Your task to perform on an android device: install app "Google Chat" Image 0: 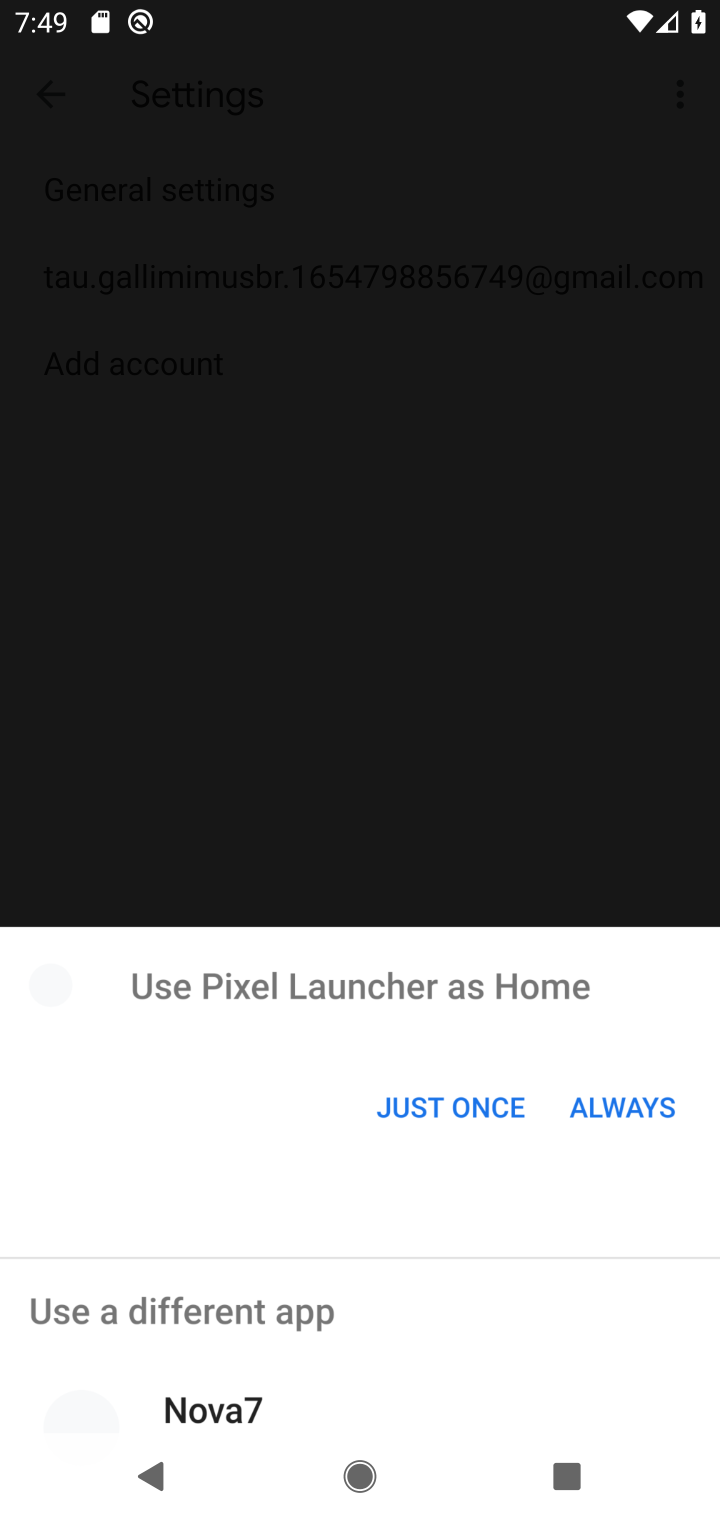
Step 0: drag from (233, 996) to (435, 246)
Your task to perform on an android device: install app "Google Chat" Image 1: 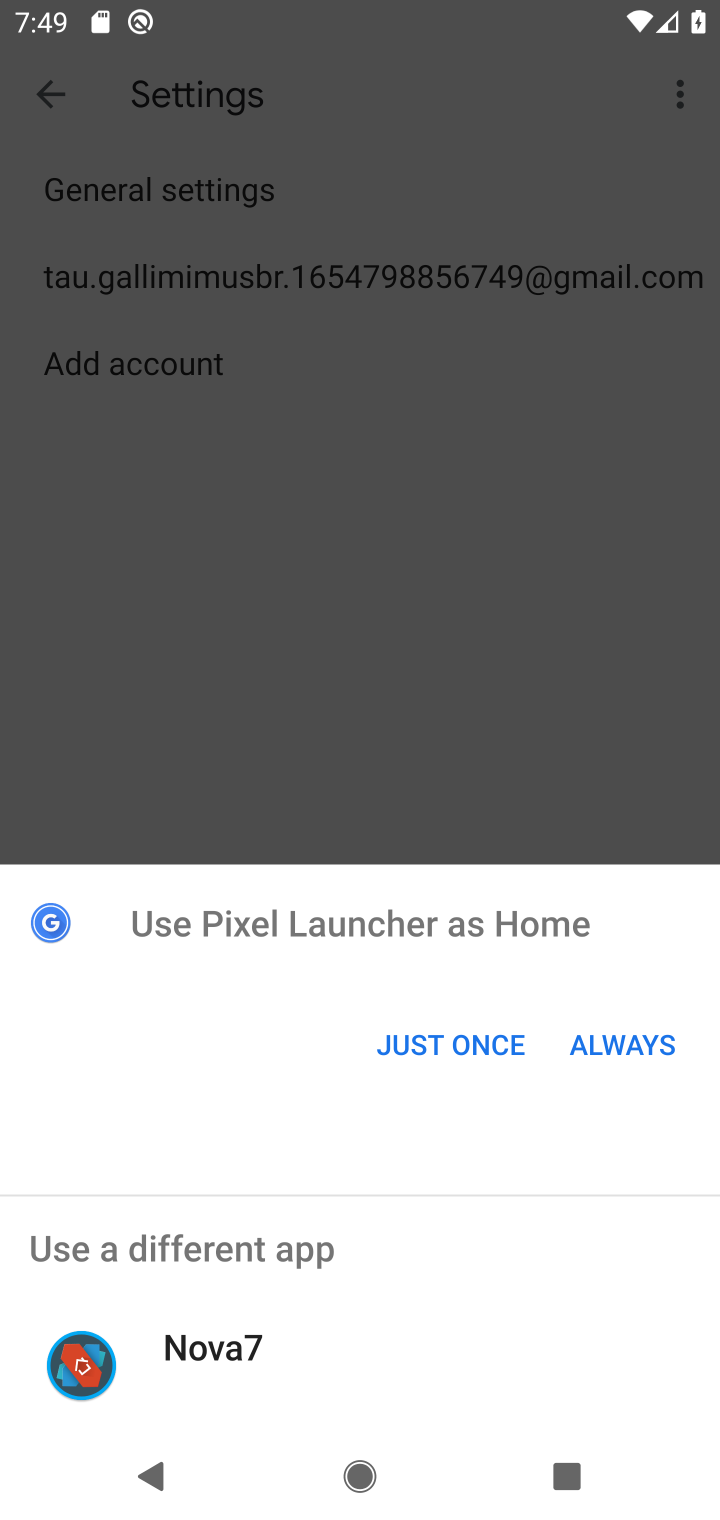
Step 1: click (654, 1053)
Your task to perform on an android device: install app "Google Chat" Image 2: 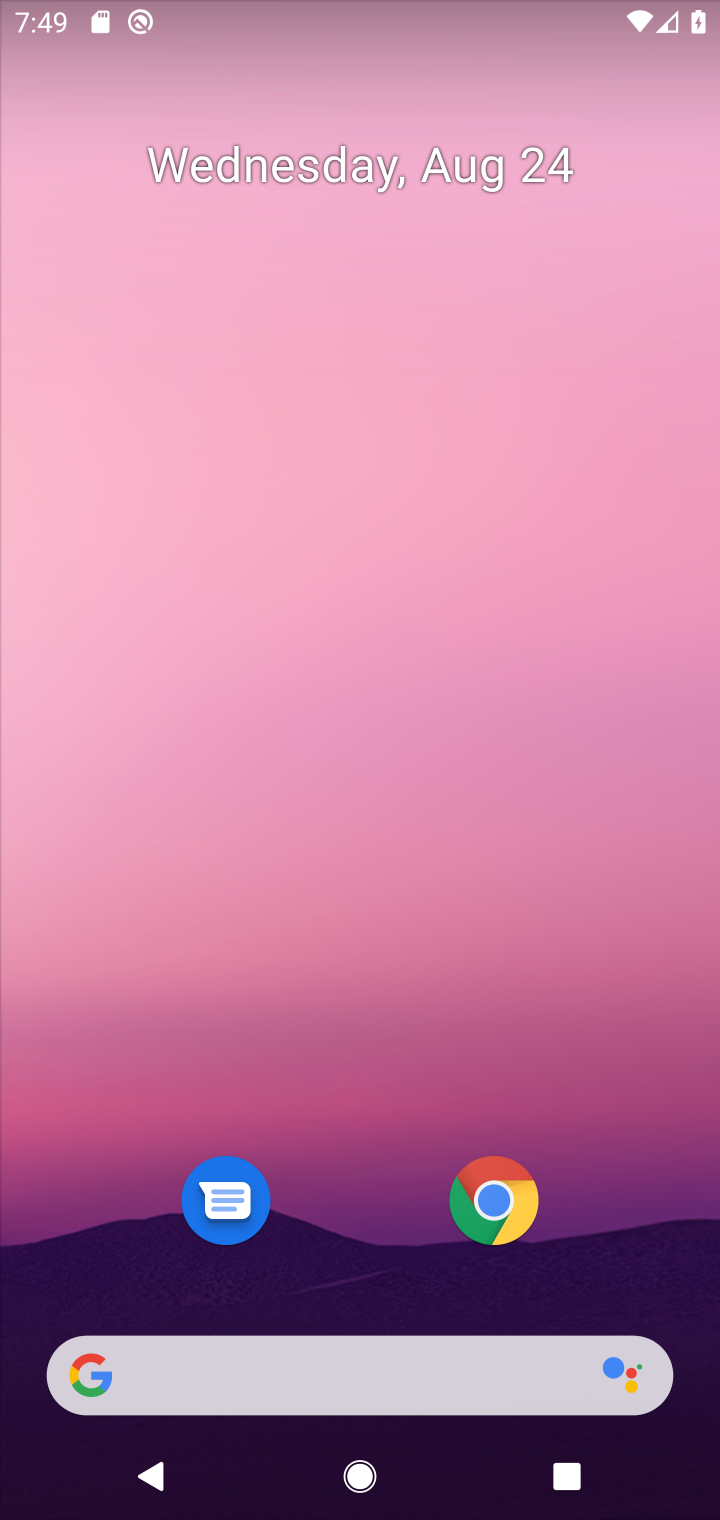
Step 2: press home button
Your task to perform on an android device: install app "Google Chat" Image 3: 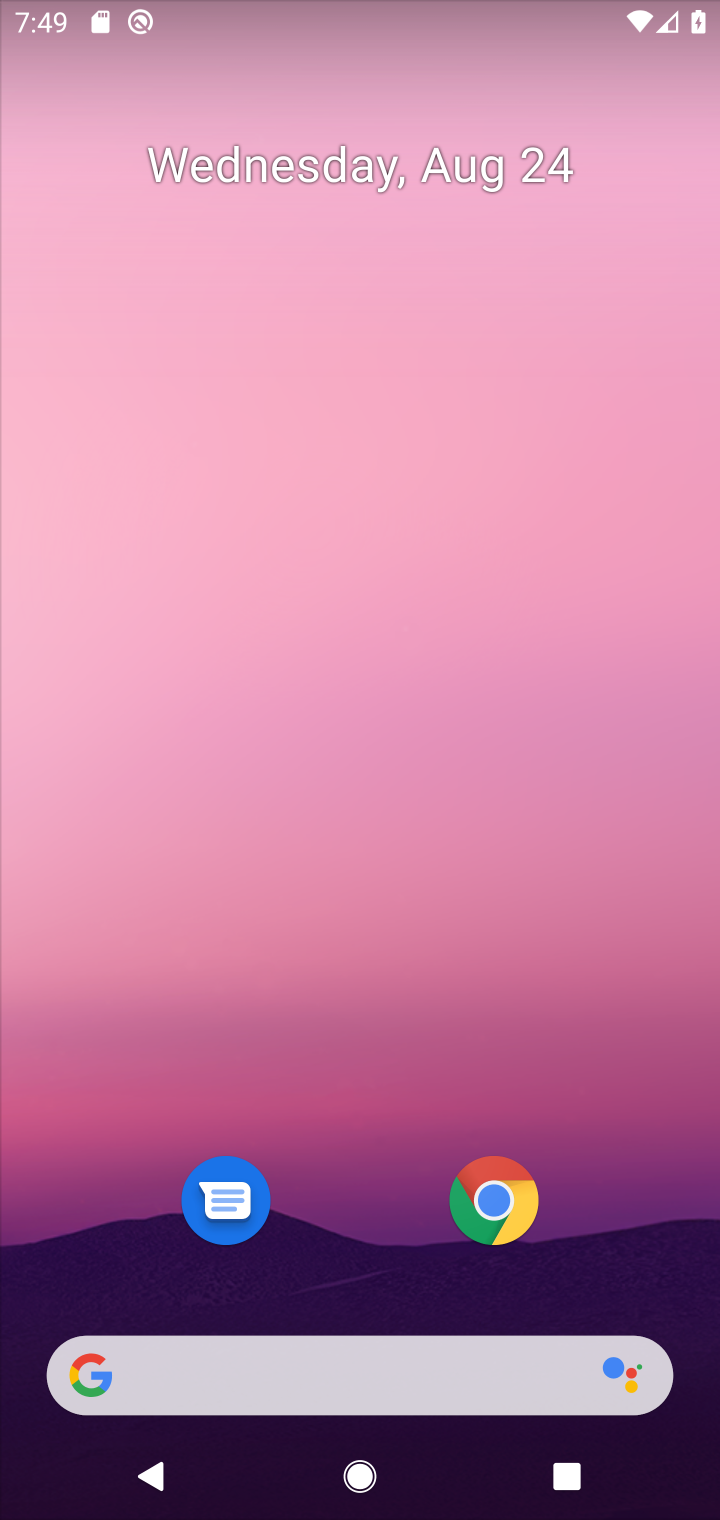
Step 3: drag from (398, 514) to (405, 428)
Your task to perform on an android device: install app "Google Chat" Image 4: 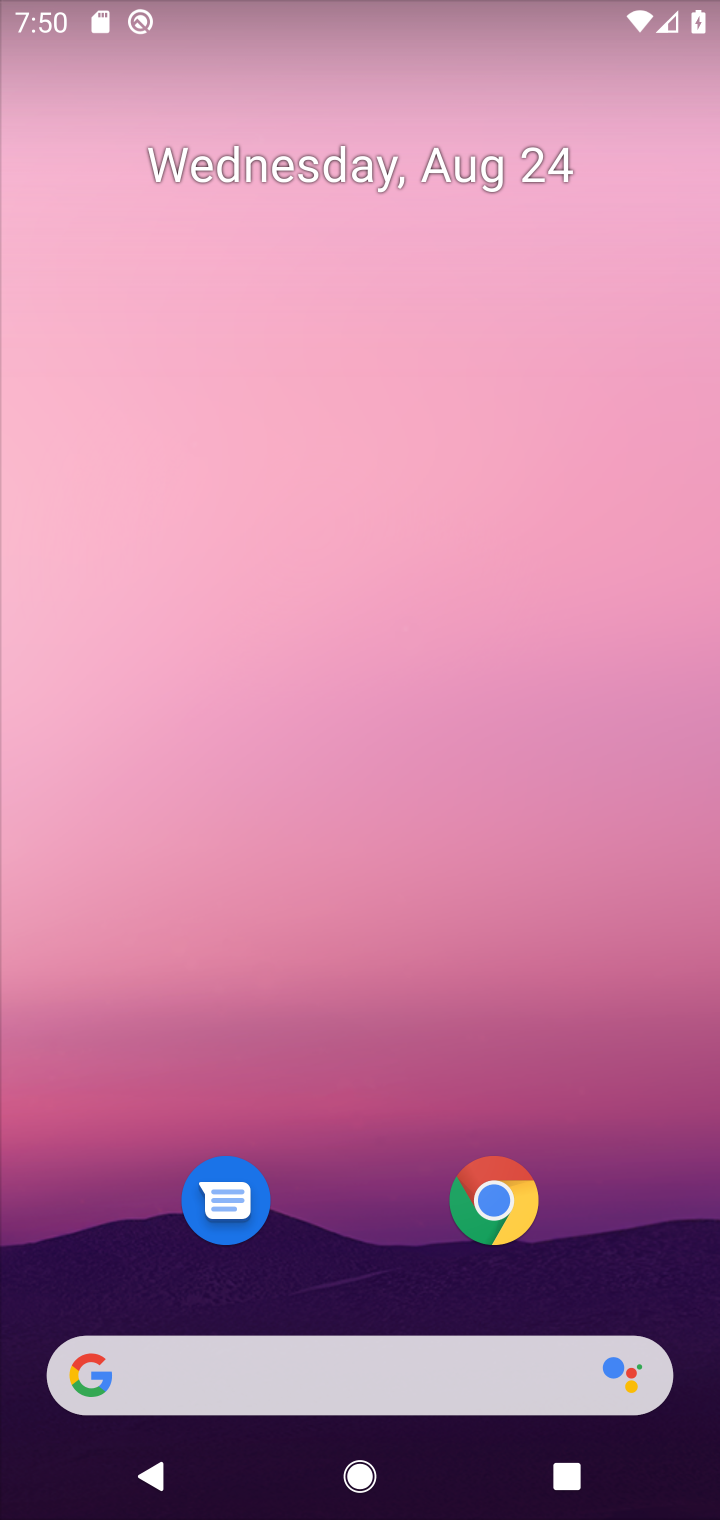
Step 4: drag from (351, 1071) to (415, 165)
Your task to perform on an android device: install app "Google Chat" Image 5: 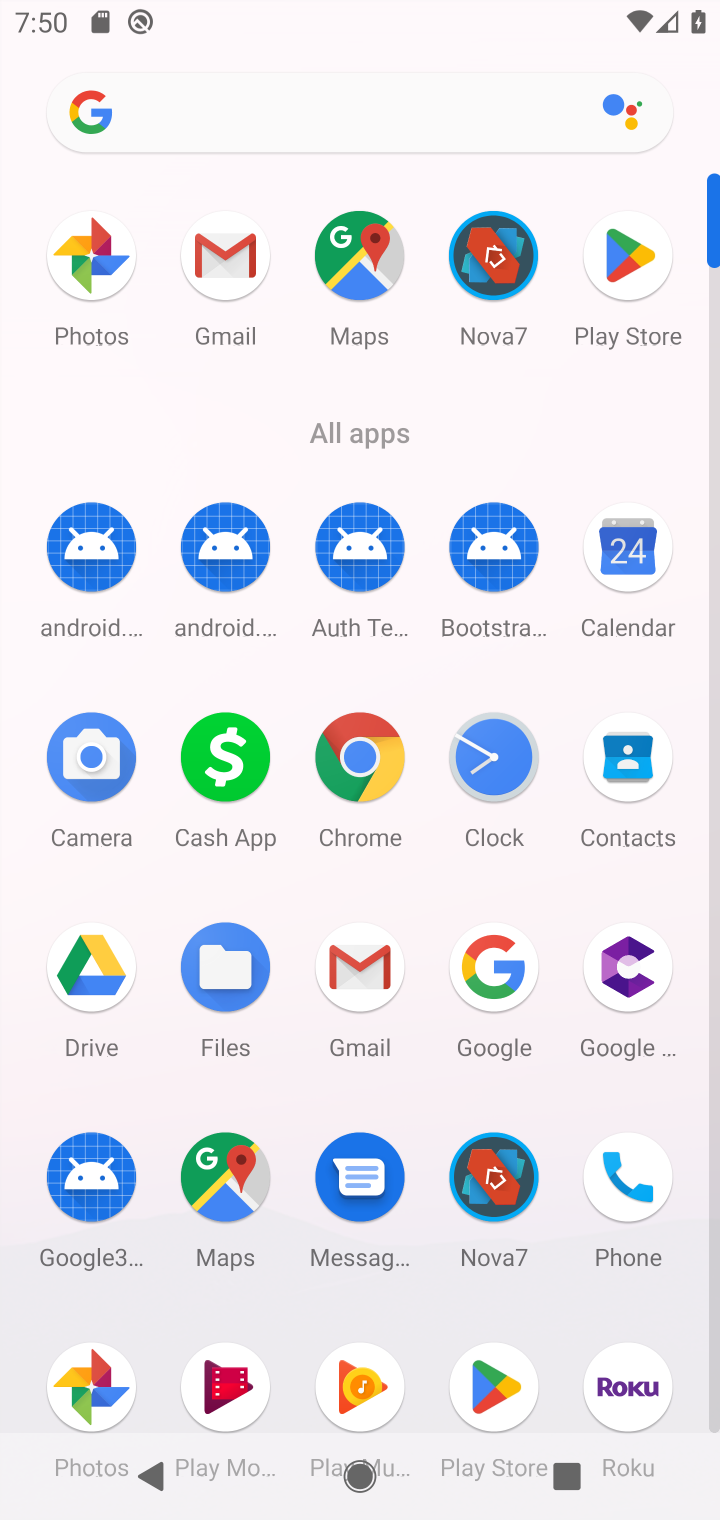
Step 5: click (621, 277)
Your task to perform on an android device: install app "Google Chat" Image 6: 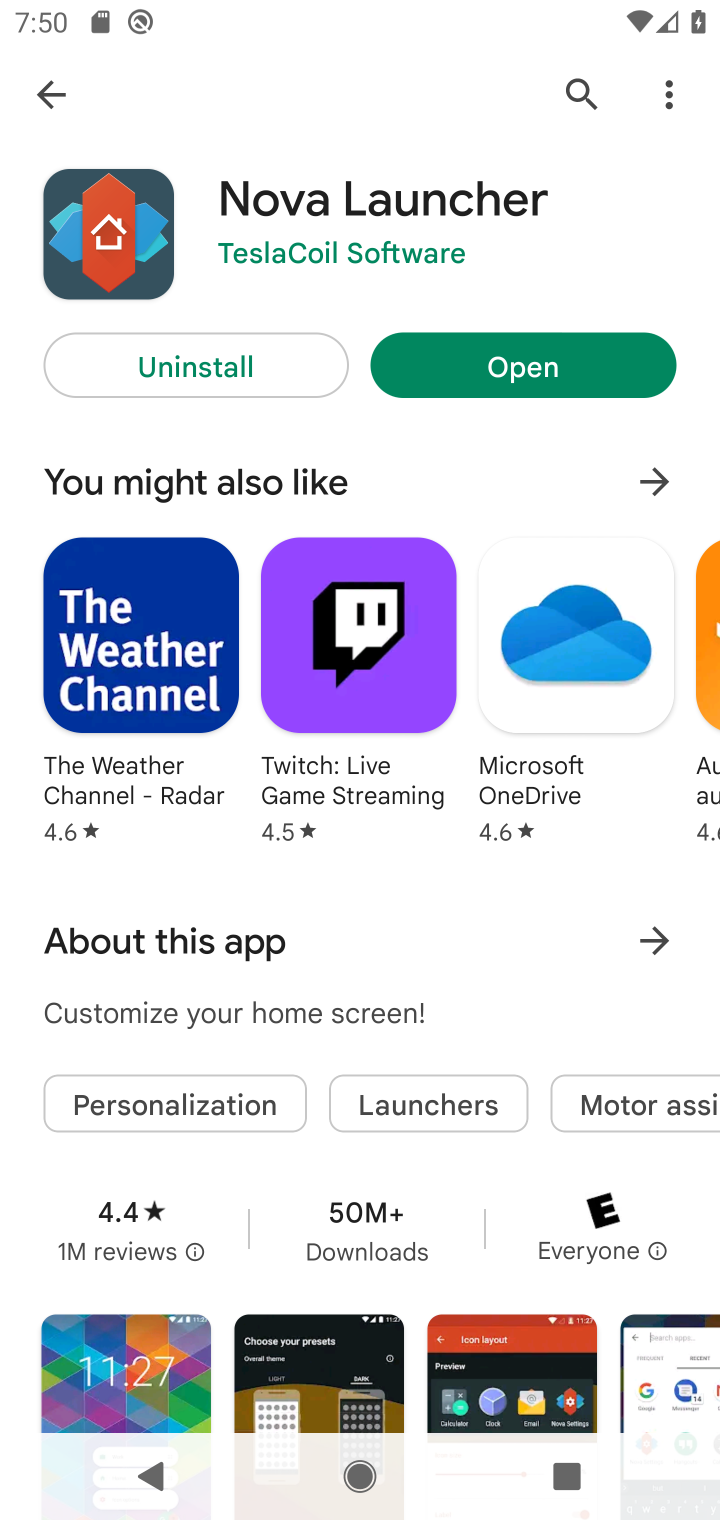
Step 6: click (54, 72)
Your task to perform on an android device: install app "Google Chat" Image 7: 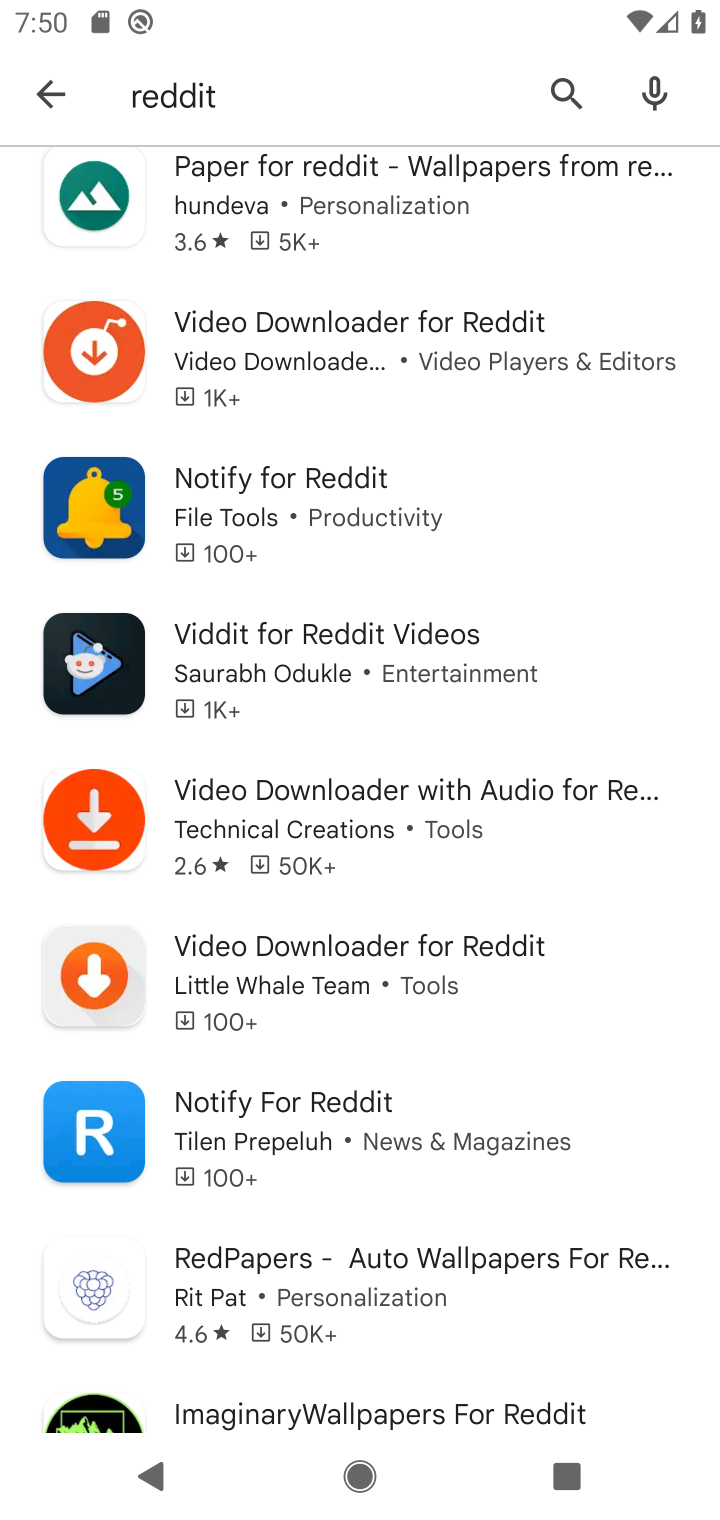
Step 7: click (272, 102)
Your task to perform on an android device: install app "Google Chat" Image 8: 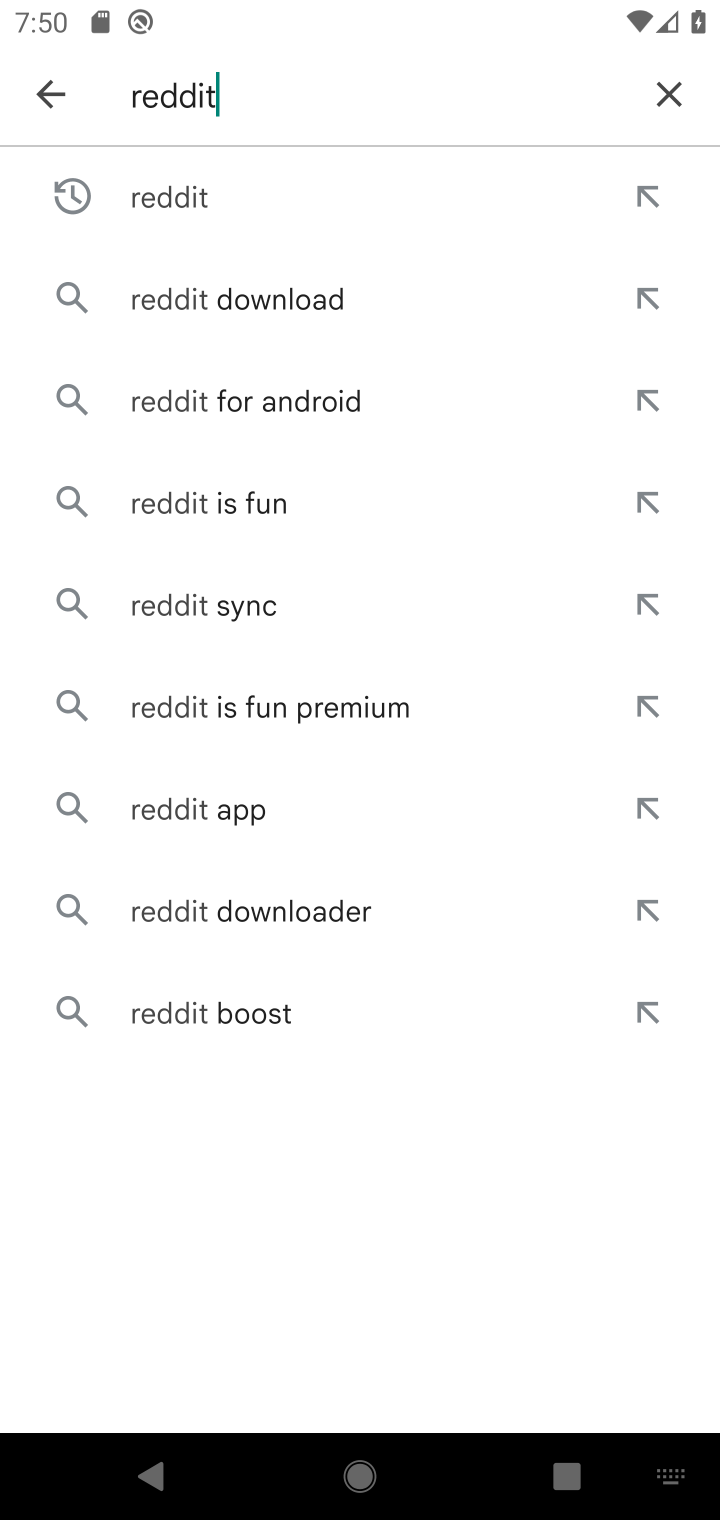
Step 8: click (285, 111)
Your task to perform on an android device: install app "Google Chat" Image 9: 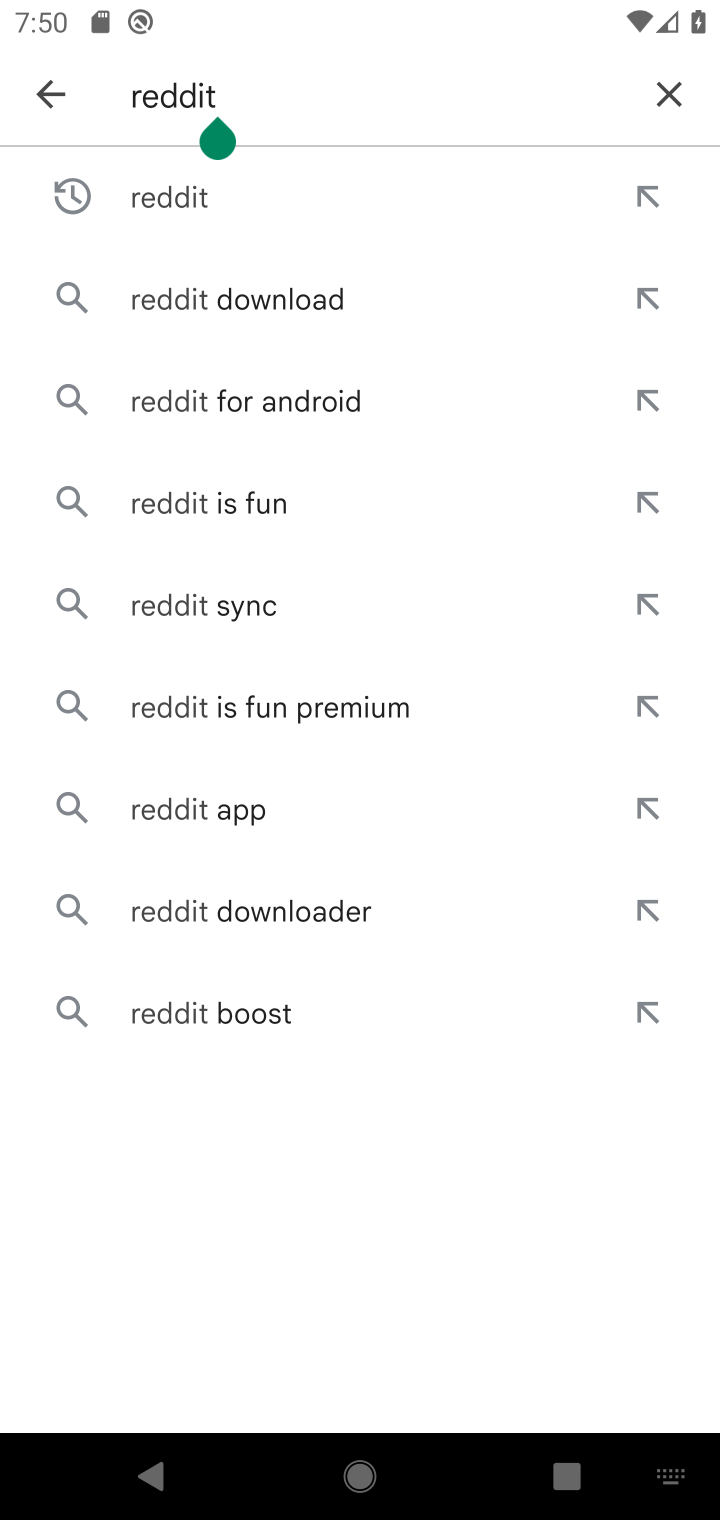
Step 9: click (656, 101)
Your task to perform on an android device: install app "Google Chat" Image 10: 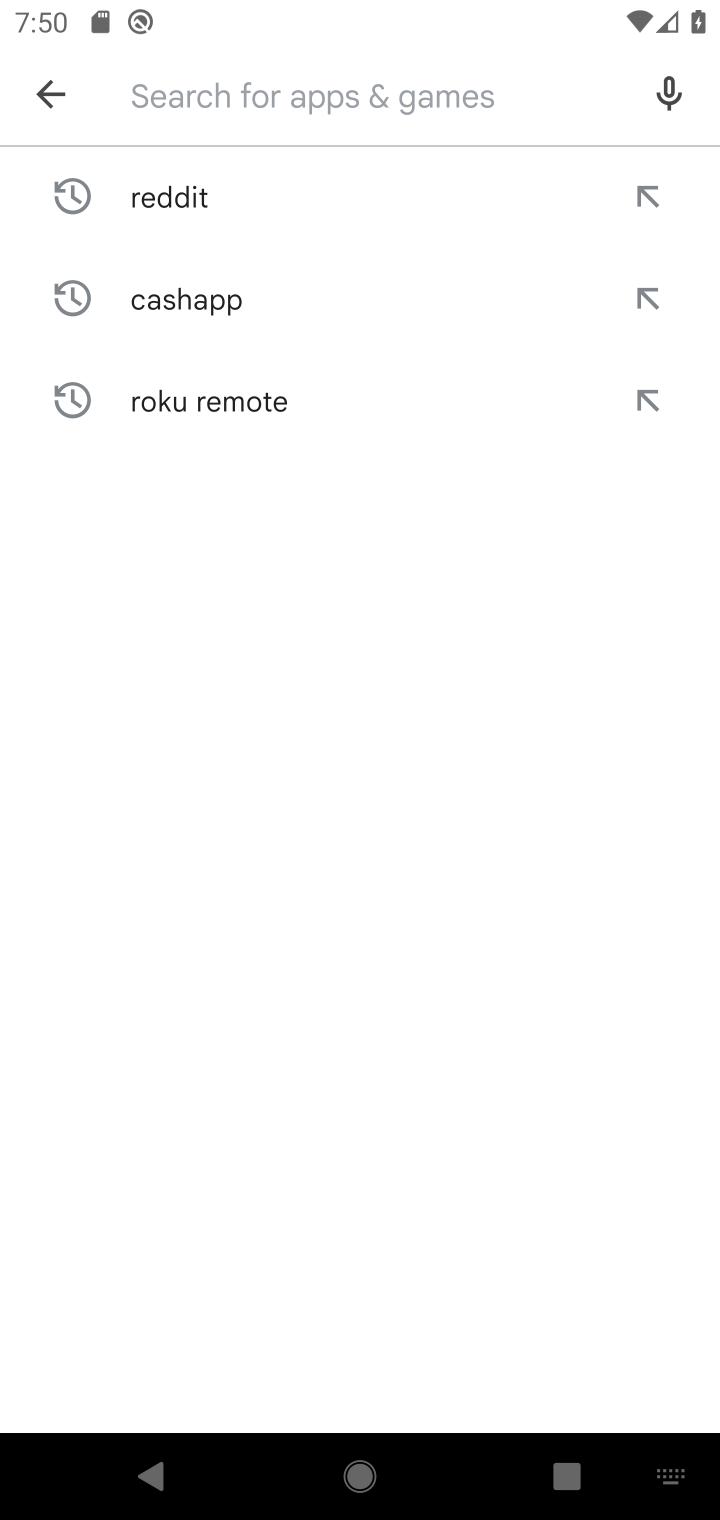
Step 10: type "google chat"
Your task to perform on an android device: install app "Google Chat" Image 11: 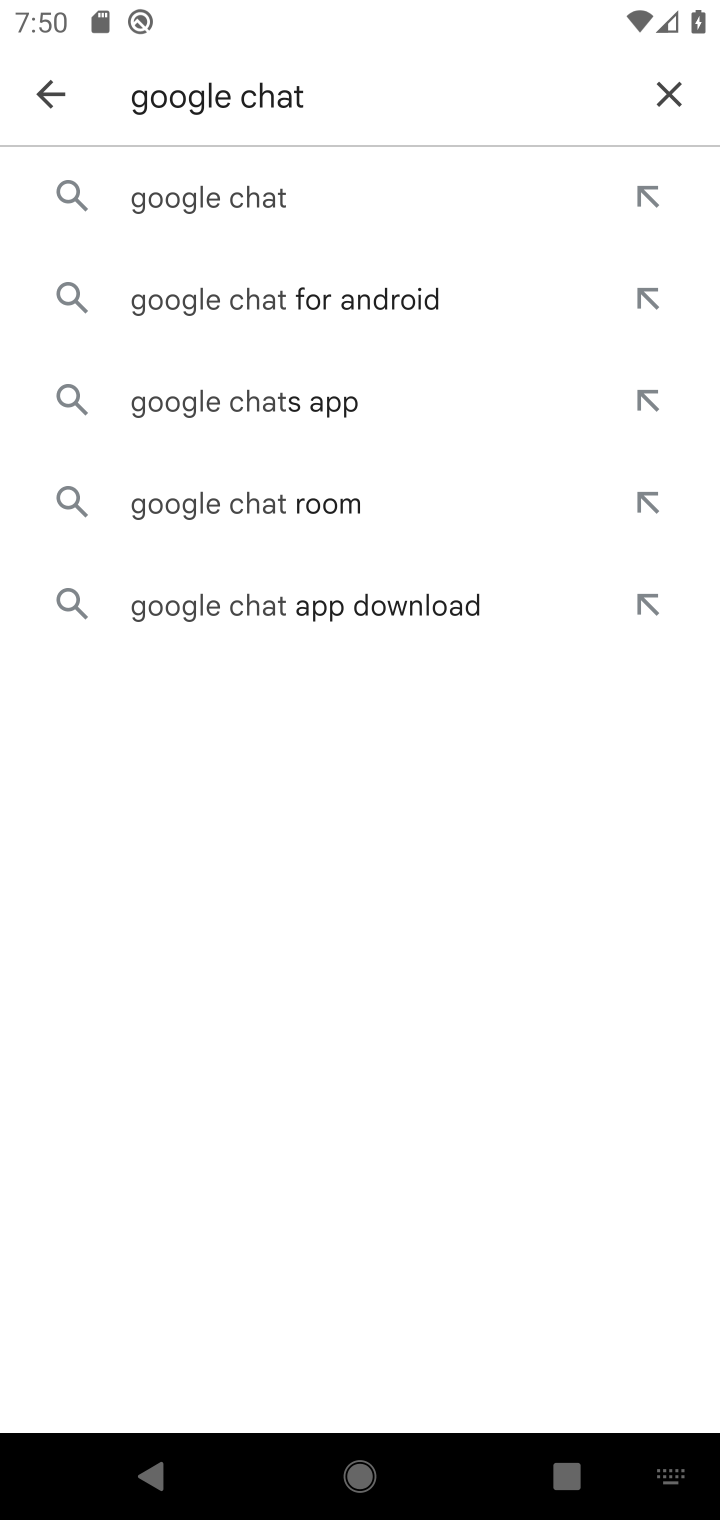
Step 11: click (252, 181)
Your task to perform on an android device: install app "Google Chat" Image 12: 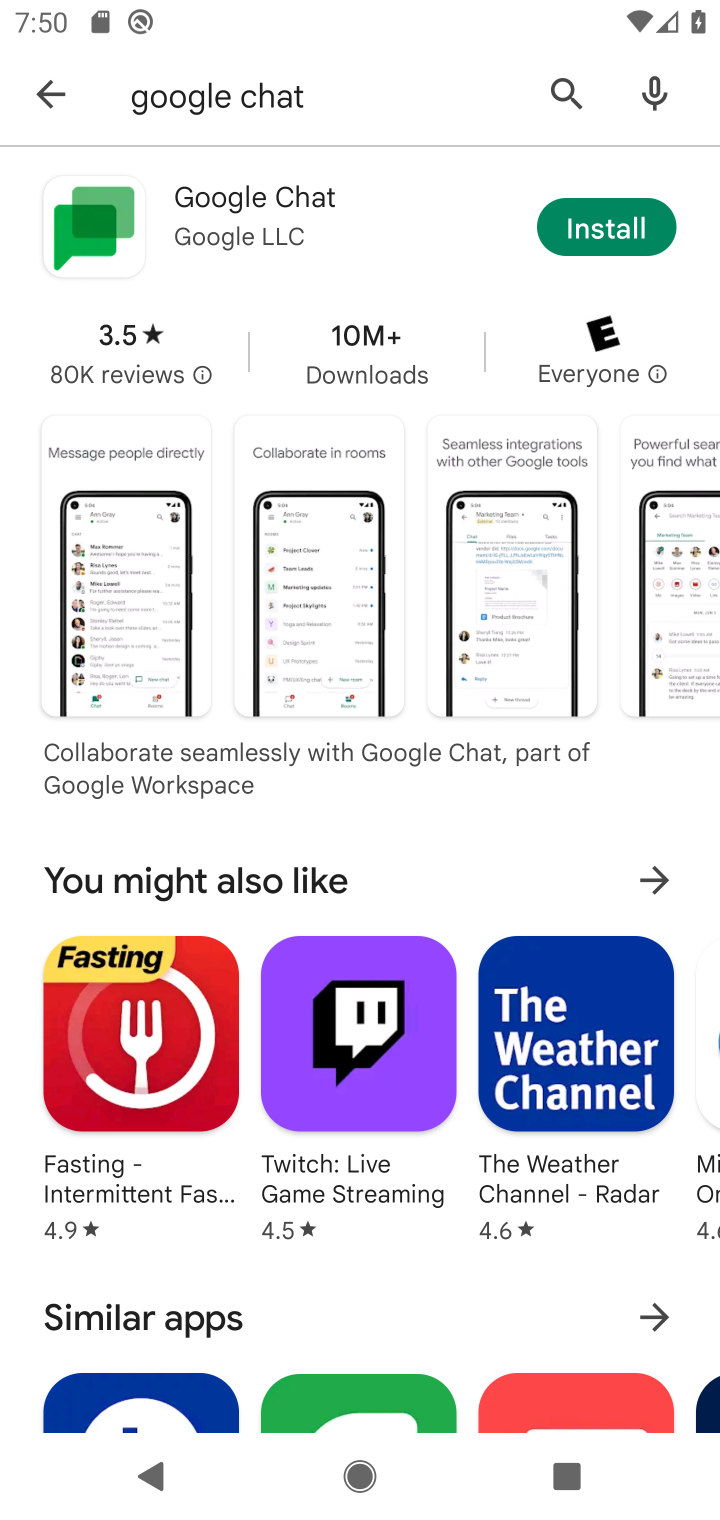
Step 12: click (598, 229)
Your task to perform on an android device: install app "Google Chat" Image 13: 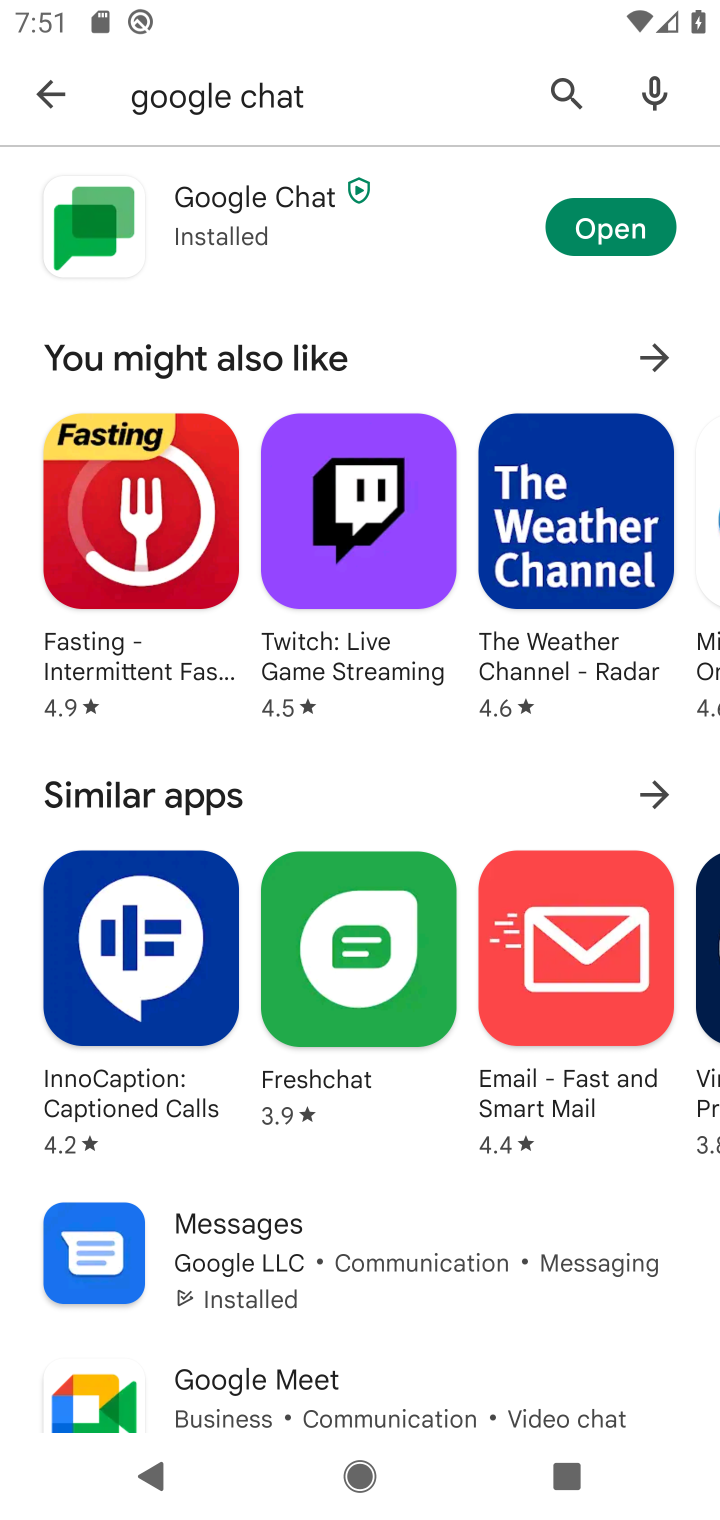
Step 13: task complete